Your task to perform on an android device: search for starred emails in the gmail app Image 0: 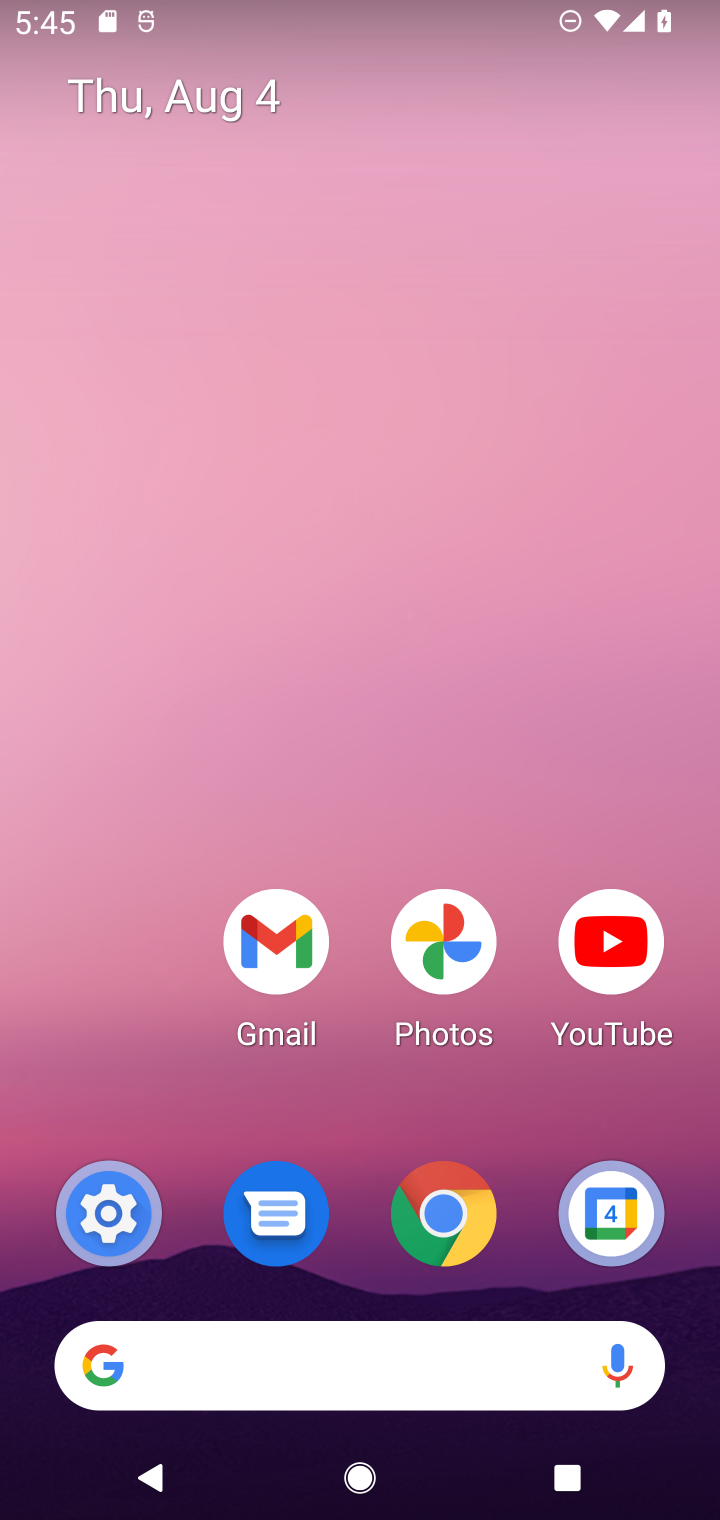
Step 0: drag from (162, 1094) to (191, 495)
Your task to perform on an android device: search for starred emails in the gmail app Image 1: 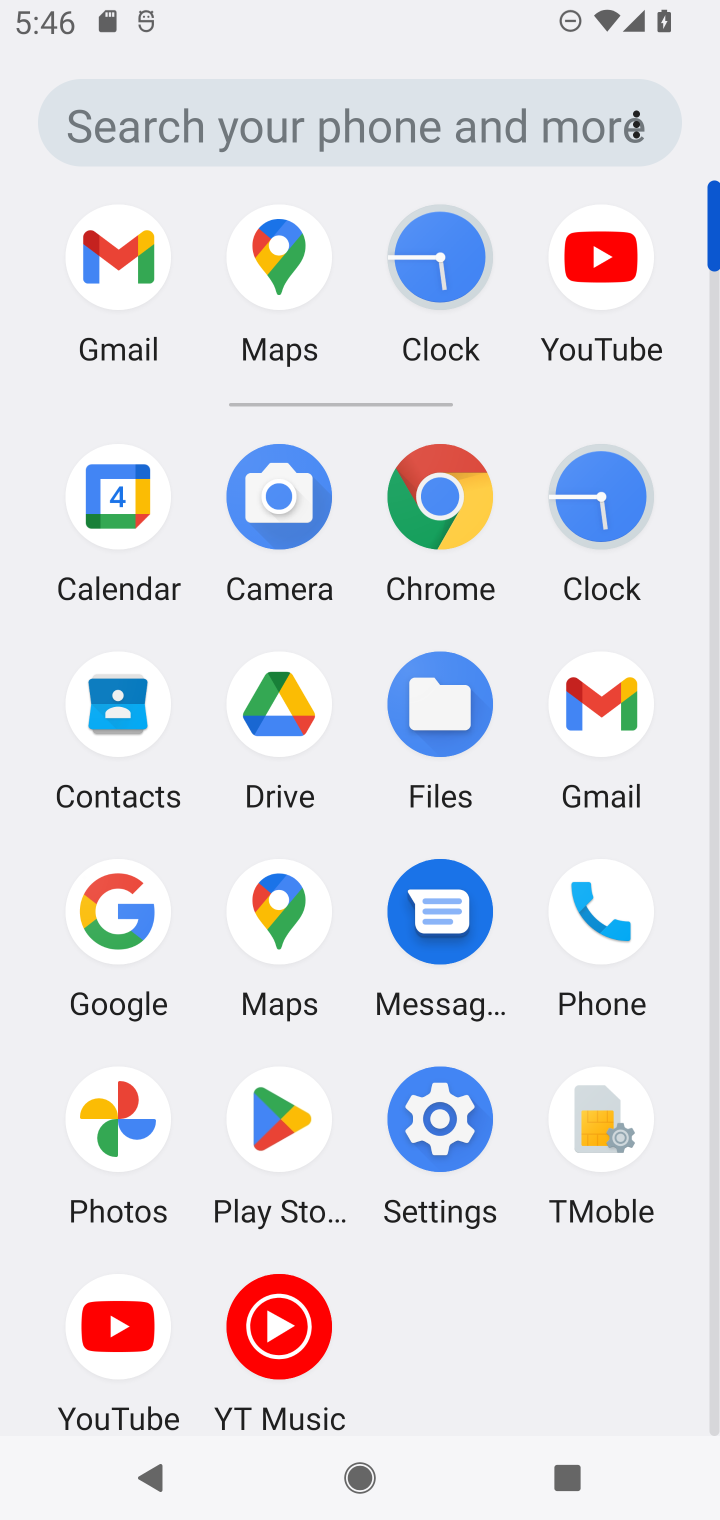
Step 1: click (611, 712)
Your task to perform on an android device: search for starred emails in the gmail app Image 2: 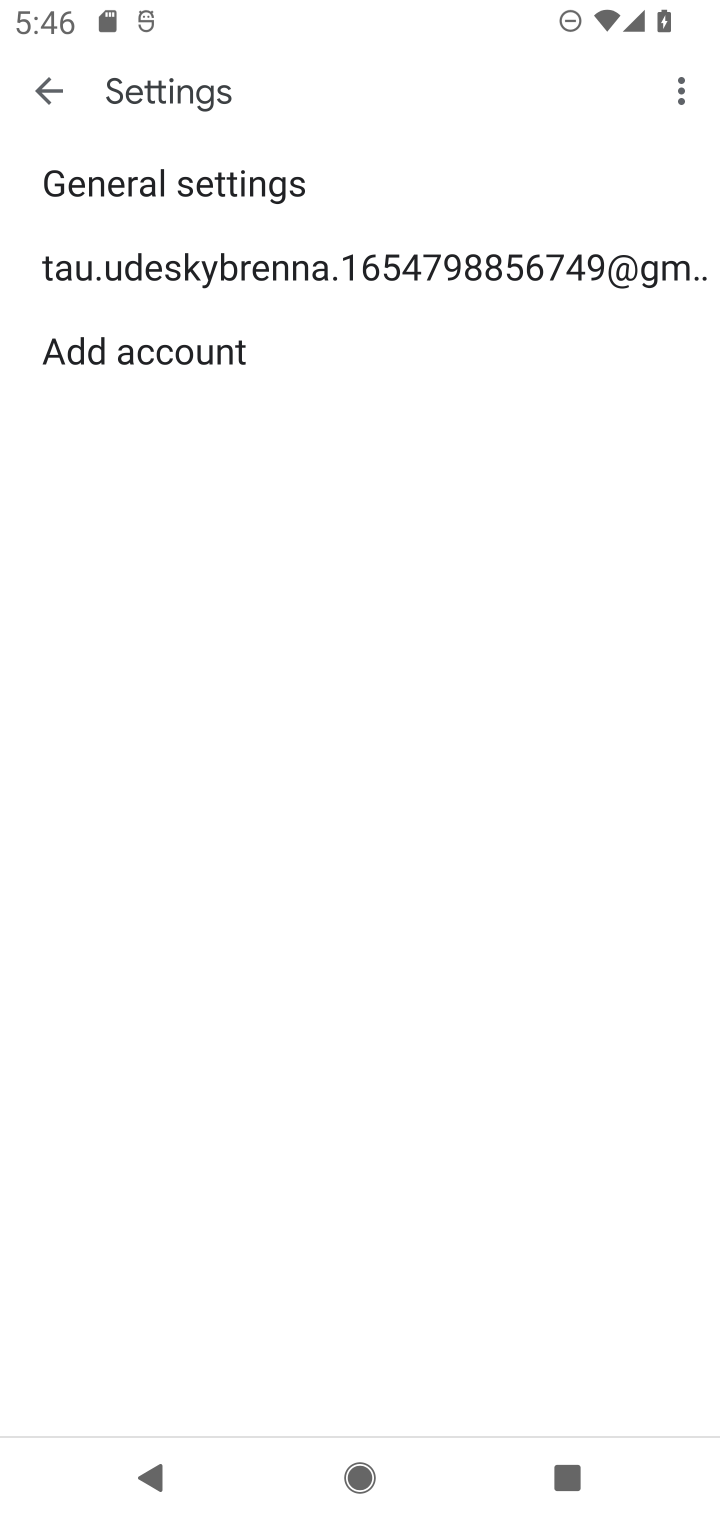
Step 2: press back button
Your task to perform on an android device: search for starred emails in the gmail app Image 3: 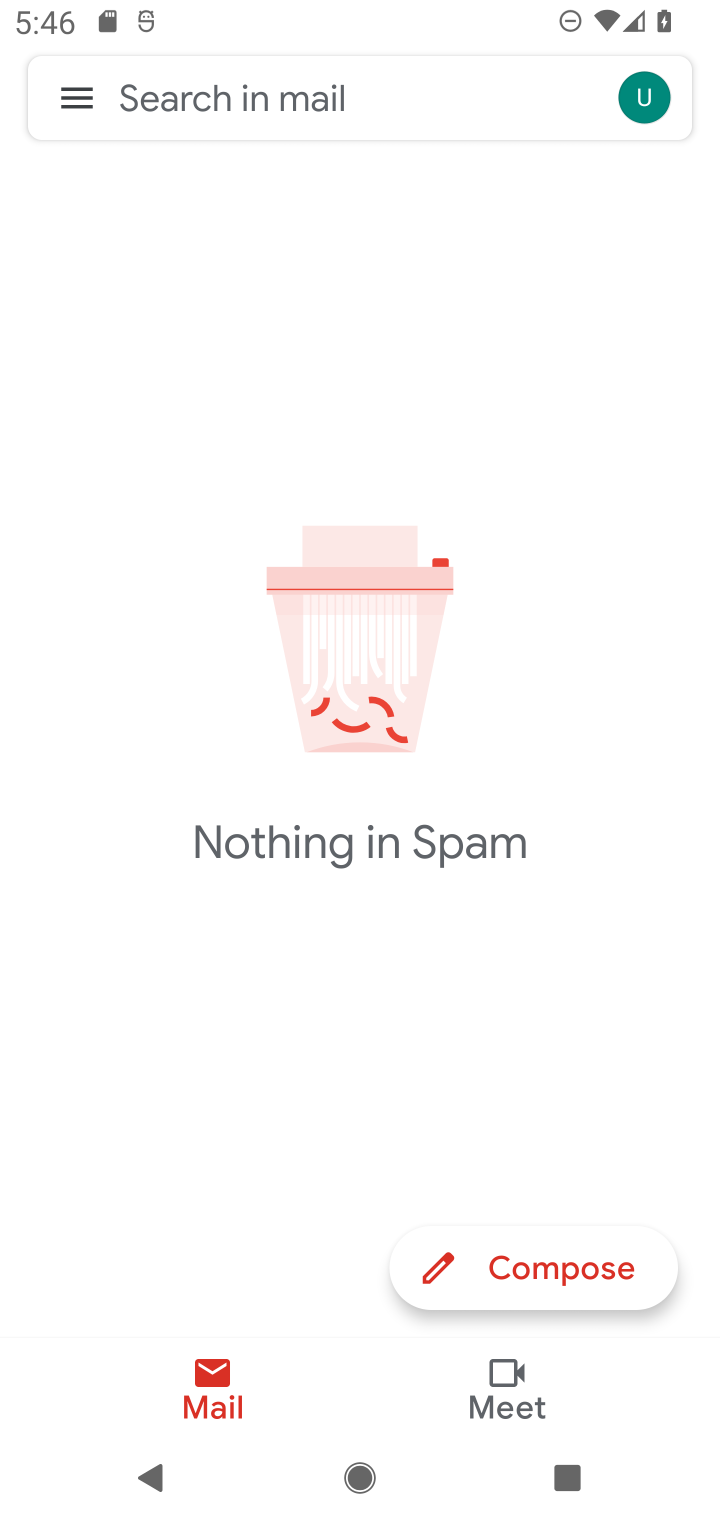
Step 3: click (78, 94)
Your task to perform on an android device: search for starred emails in the gmail app Image 4: 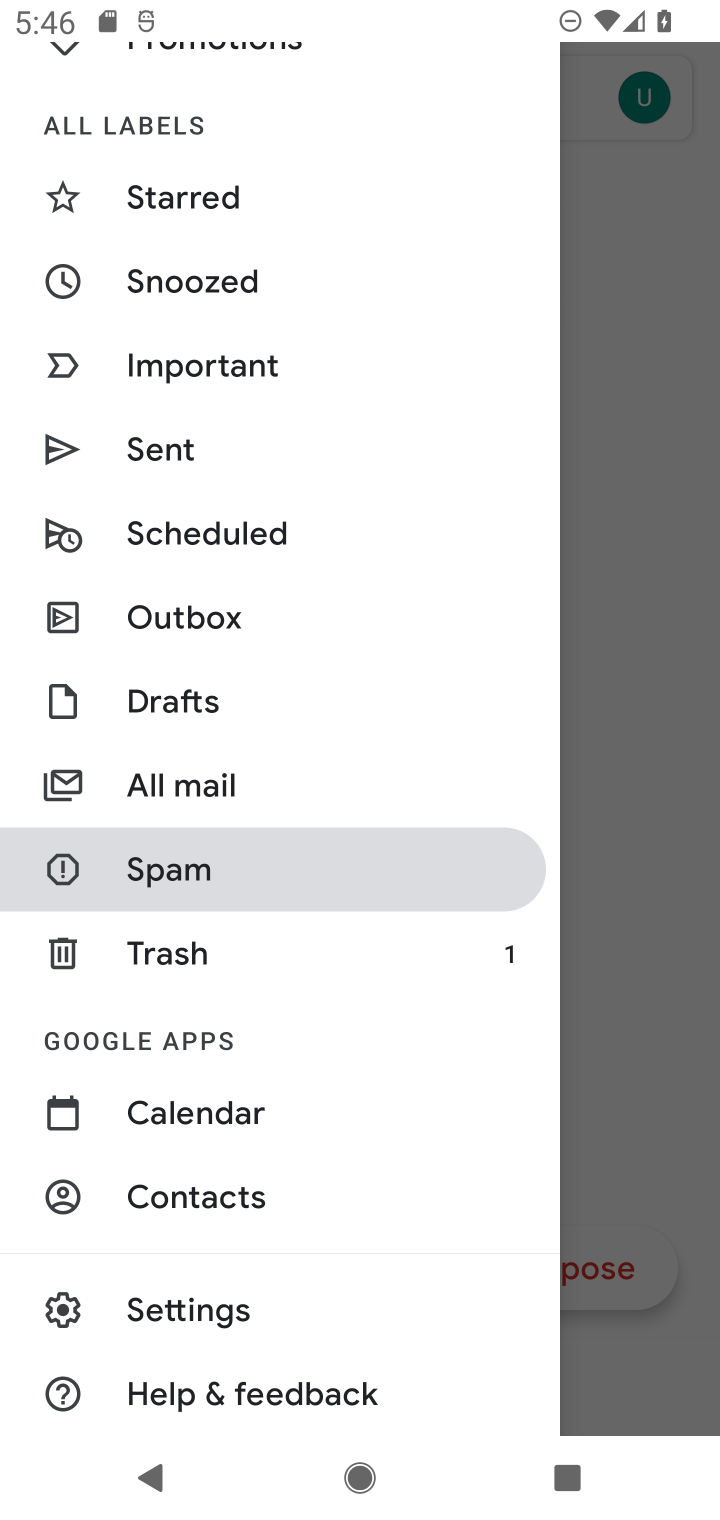
Step 4: click (195, 194)
Your task to perform on an android device: search for starred emails in the gmail app Image 5: 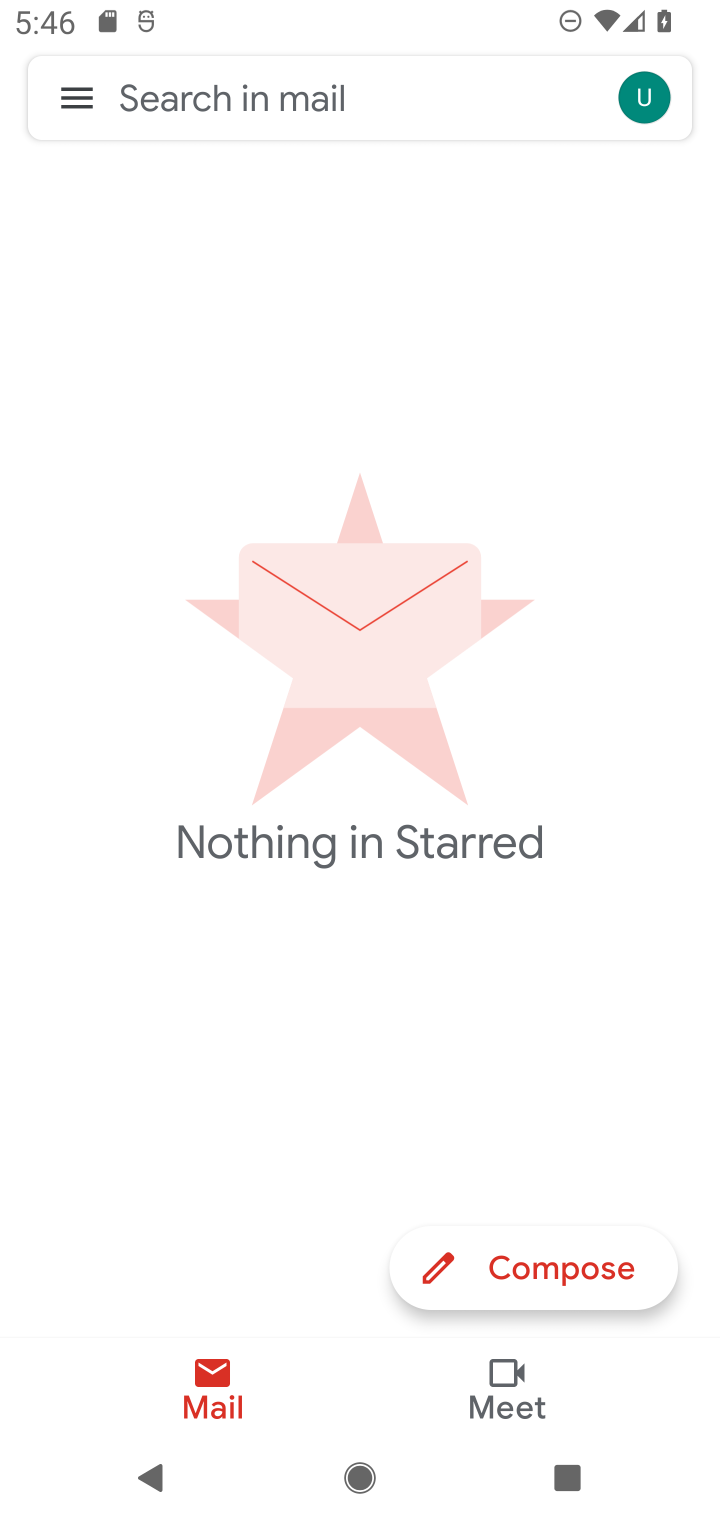
Step 5: task complete